Your task to perform on an android device: Open notification settings Image 0: 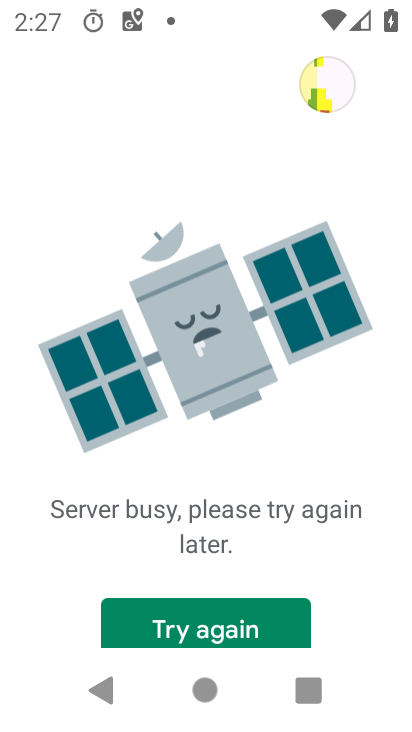
Step 0: click (177, 308)
Your task to perform on an android device: Open notification settings Image 1: 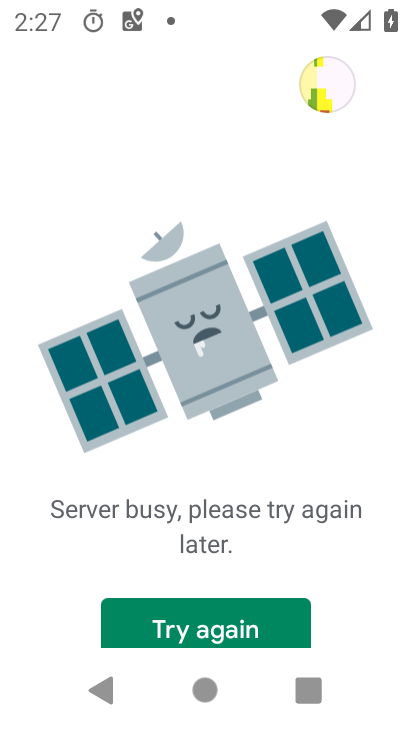
Step 1: task complete